Your task to perform on an android device: Go to sound settings Image 0: 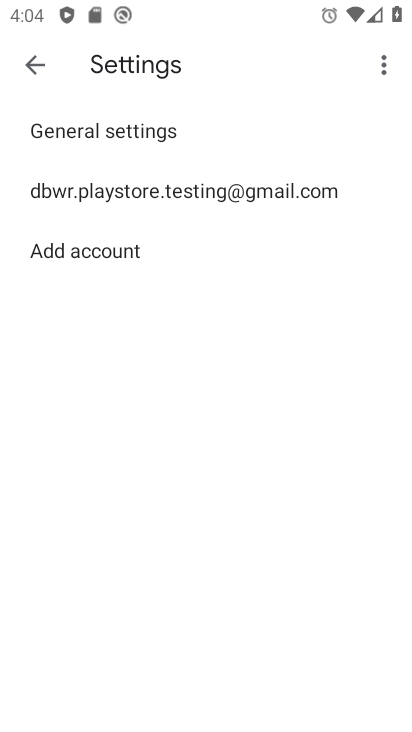
Step 0: press home button
Your task to perform on an android device: Go to sound settings Image 1: 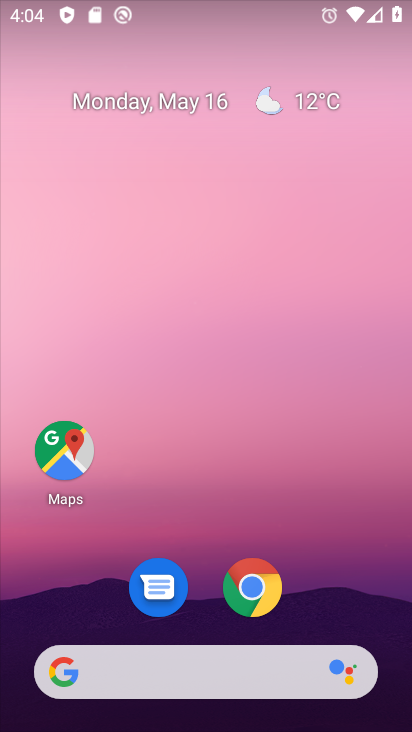
Step 1: drag from (385, 560) to (376, 284)
Your task to perform on an android device: Go to sound settings Image 2: 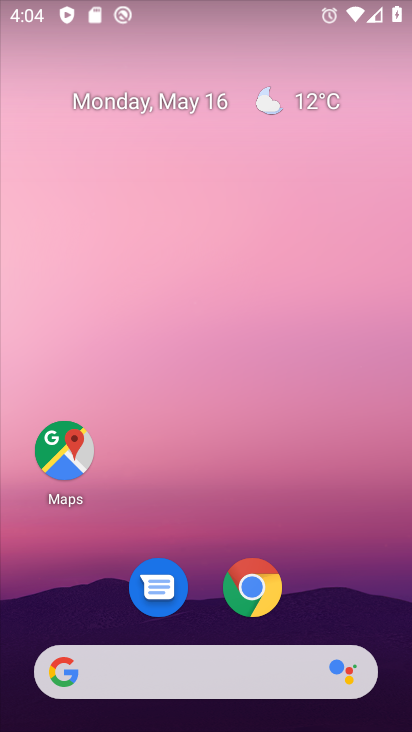
Step 2: click (314, 207)
Your task to perform on an android device: Go to sound settings Image 3: 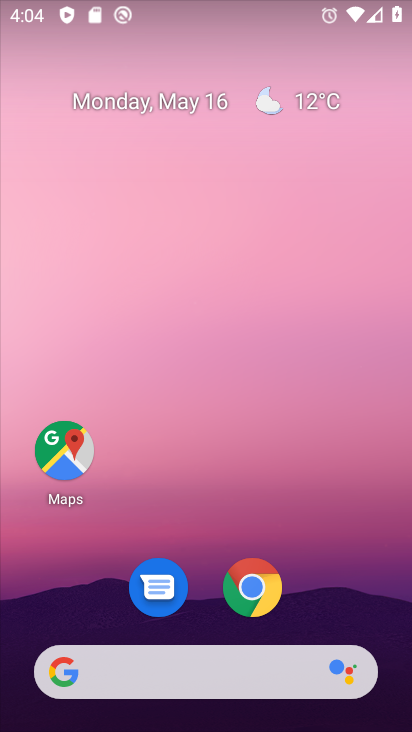
Step 3: drag from (393, 616) to (409, 138)
Your task to perform on an android device: Go to sound settings Image 4: 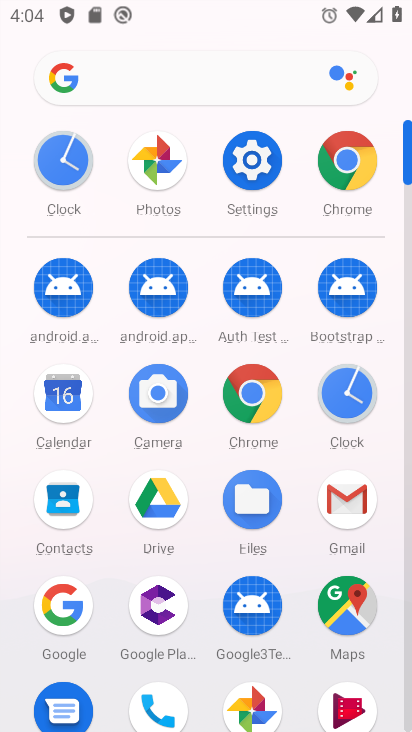
Step 4: click (252, 155)
Your task to perform on an android device: Go to sound settings Image 5: 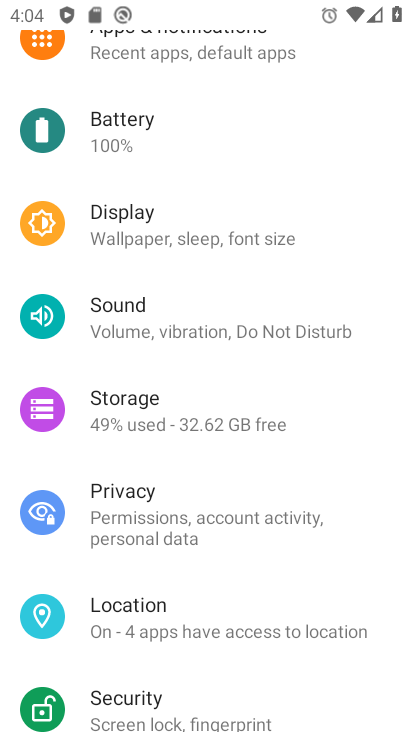
Step 5: click (114, 303)
Your task to perform on an android device: Go to sound settings Image 6: 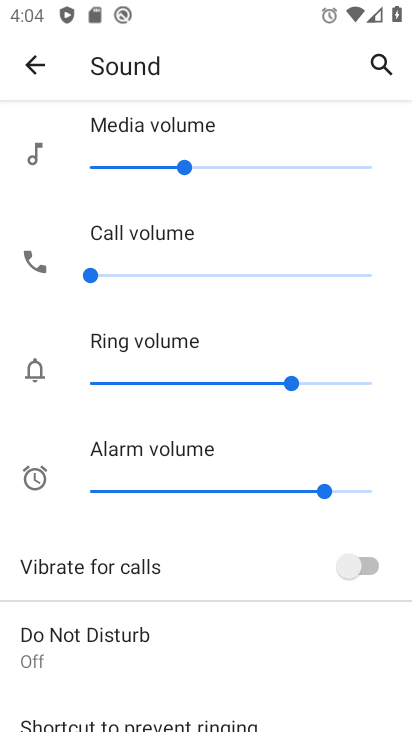
Step 6: task complete